Your task to perform on an android device: find which apps use the phone's location Image 0: 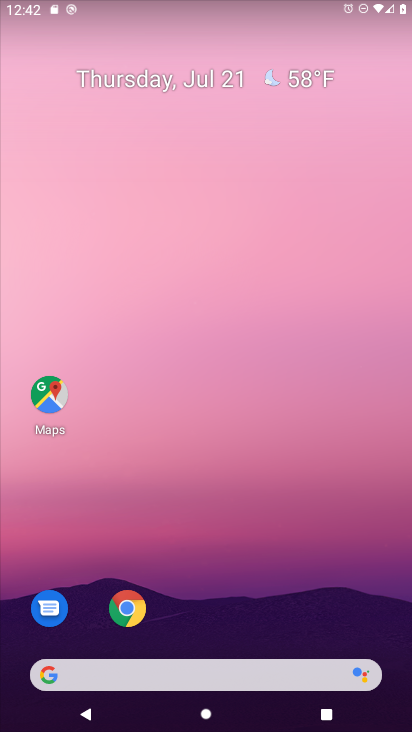
Step 0: press home button
Your task to perform on an android device: find which apps use the phone's location Image 1: 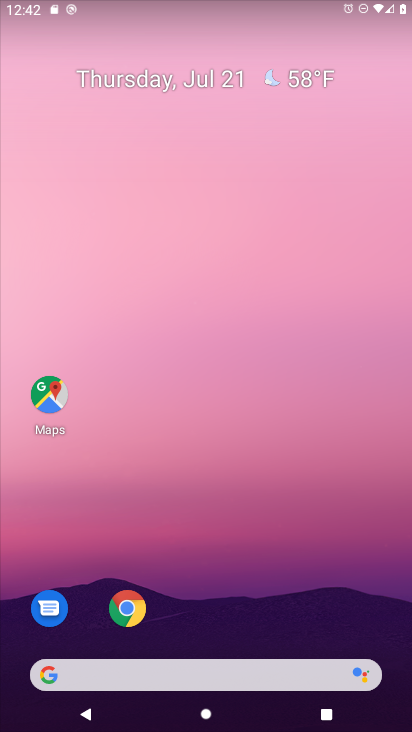
Step 1: drag from (256, 582) to (230, 65)
Your task to perform on an android device: find which apps use the phone's location Image 2: 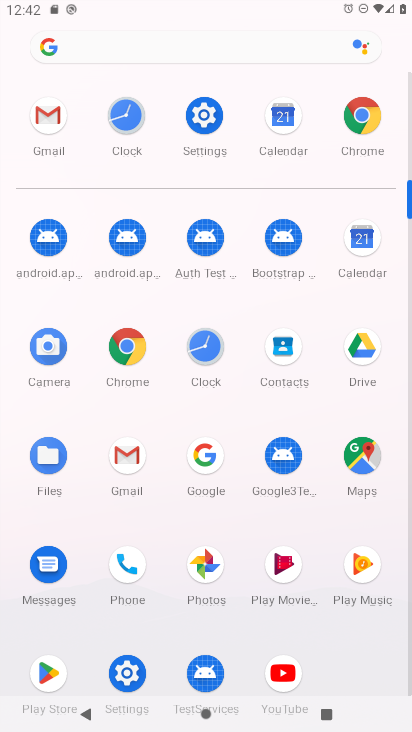
Step 2: click (204, 119)
Your task to perform on an android device: find which apps use the phone's location Image 3: 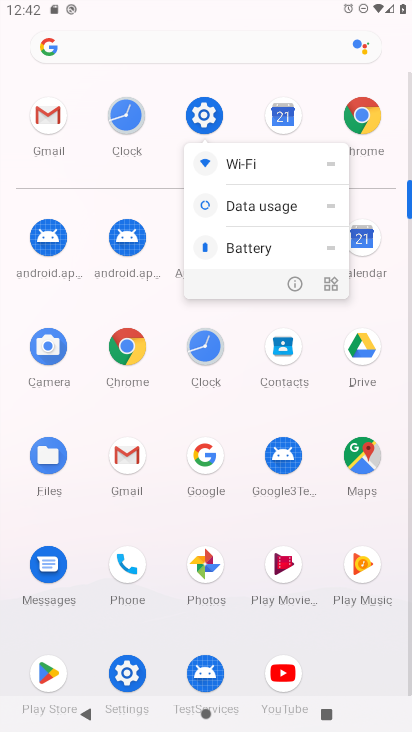
Step 3: click (204, 104)
Your task to perform on an android device: find which apps use the phone's location Image 4: 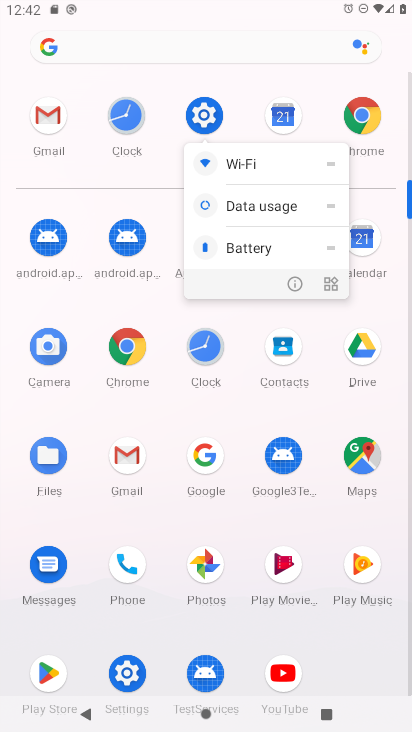
Step 4: click (204, 104)
Your task to perform on an android device: find which apps use the phone's location Image 5: 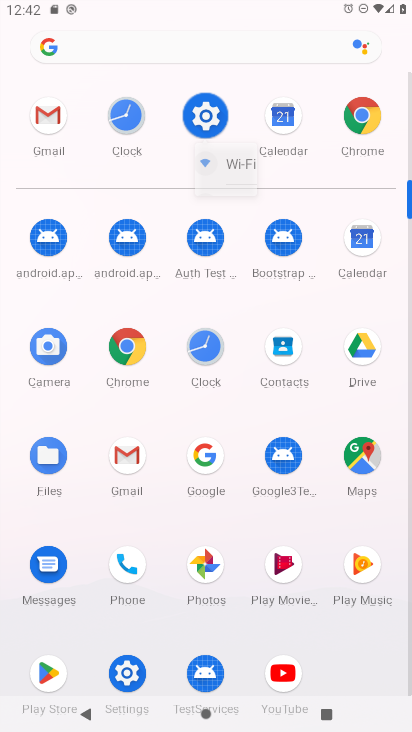
Step 5: click (194, 98)
Your task to perform on an android device: find which apps use the phone's location Image 6: 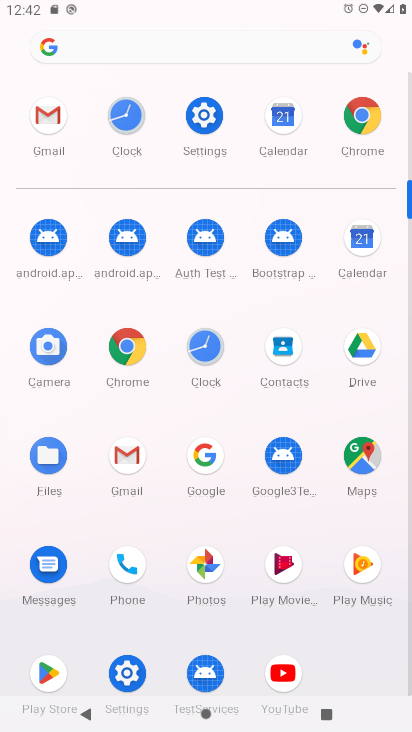
Step 6: click (207, 117)
Your task to perform on an android device: find which apps use the phone's location Image 7: 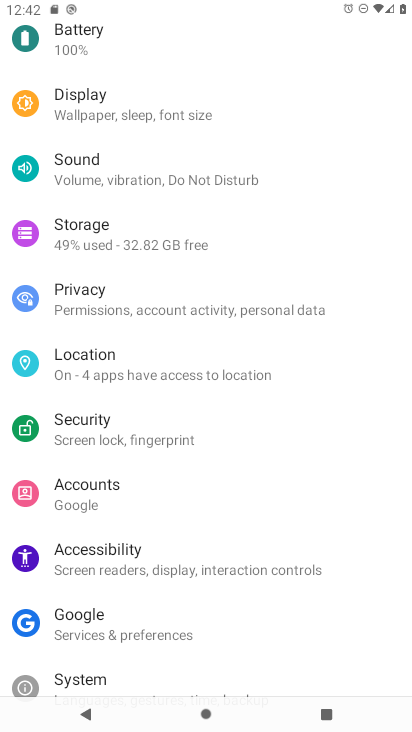
Step 7: click (90, 351)
Your task to perform on an android device: find which apps use the phone's location Image 8: 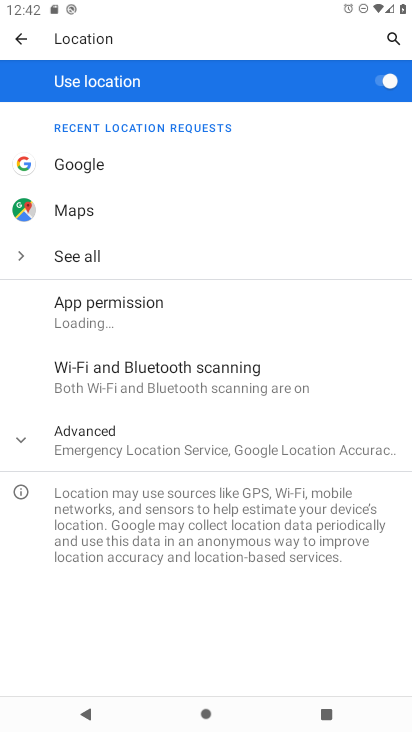
Step 8: click (97, 302)
Your task to perform on an android device: find which apps use the phone's location Image 9: 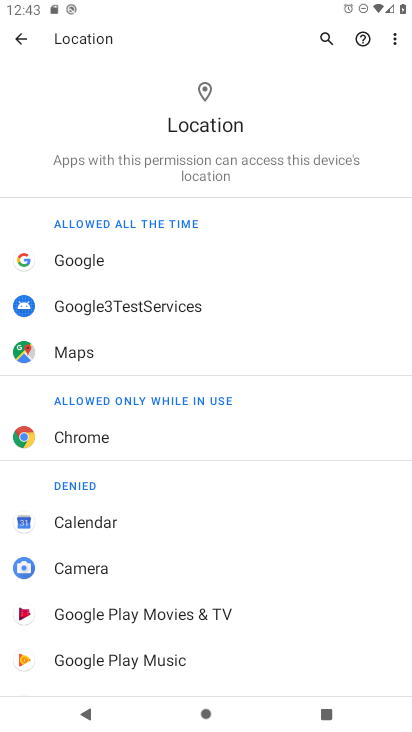
Step 9: task complete